Your task to perform on an android device: Go to Maps Image 0: 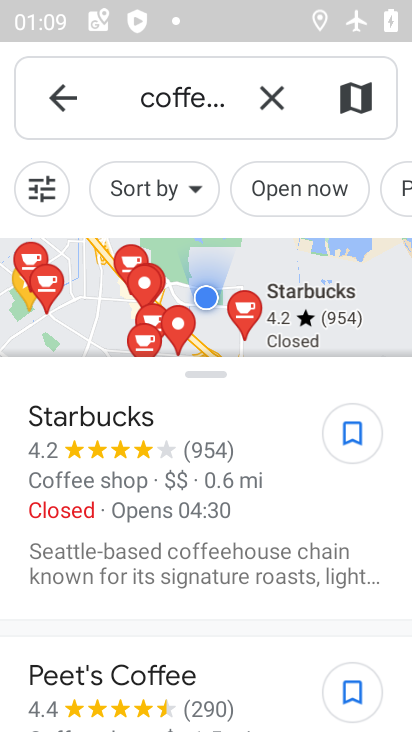
Step 0: click (272, 90)
Your task to perform on an android device: Go to Maps Image 1: 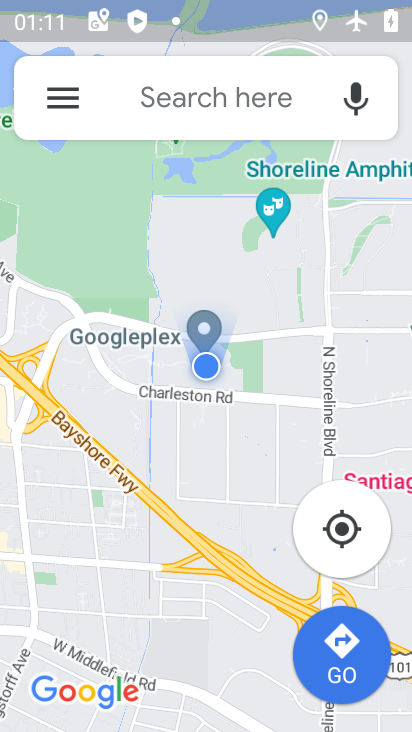
Step 1: task complete